Your task to perform on an android device: Open Google Chrome and click the shortcut for Amazon.com Image 0: 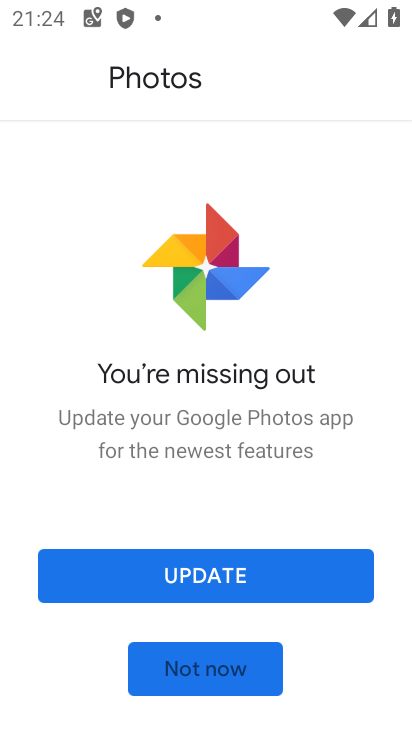
Step 0: press home button
Your task to perform on an android device: Open Google Chrome and click the shortcut for Amazon.com Image 1: 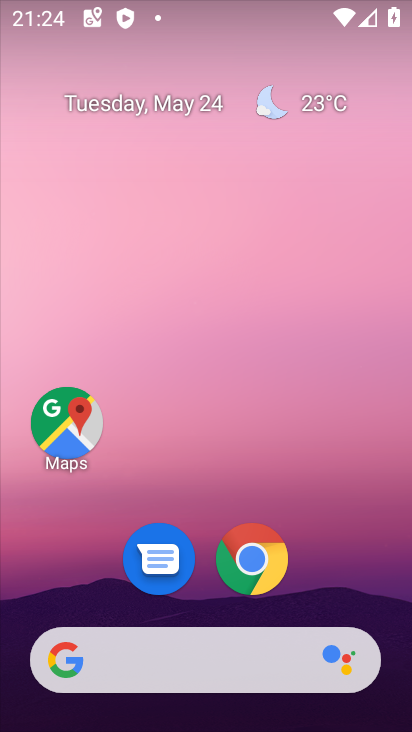
Step 1: drag from (321, 527) to (276, 111)
Your task to perform on an android device: Open Google Chrome and click the shortcut for Amazon.com Image 2: 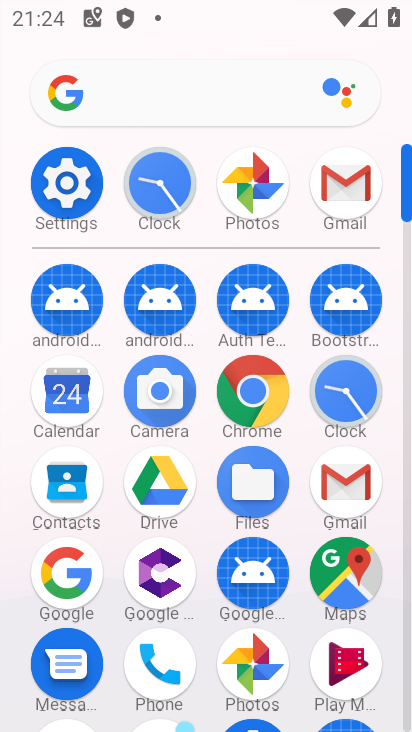
Step 2: click (251, 406)
Your task to perform on an android device: Open Google Chrome and click the shortcut for Amazon.com Image 3: 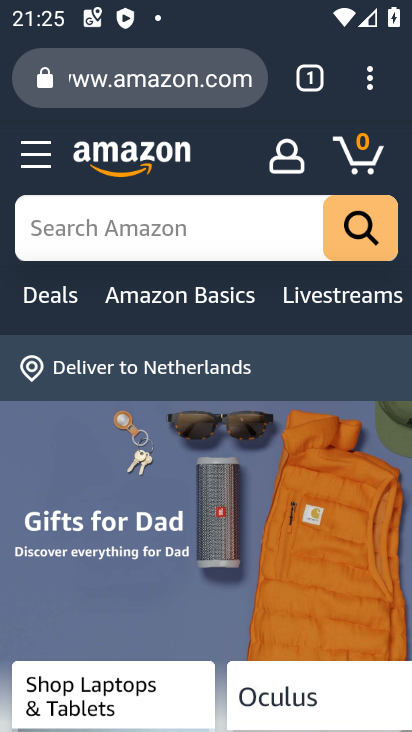
Step 3: drag from (371, 70) to (202, 157)
Your task to perform on an android device: Open Google Chrome and click the shortcut for Amazon.com Image 4: 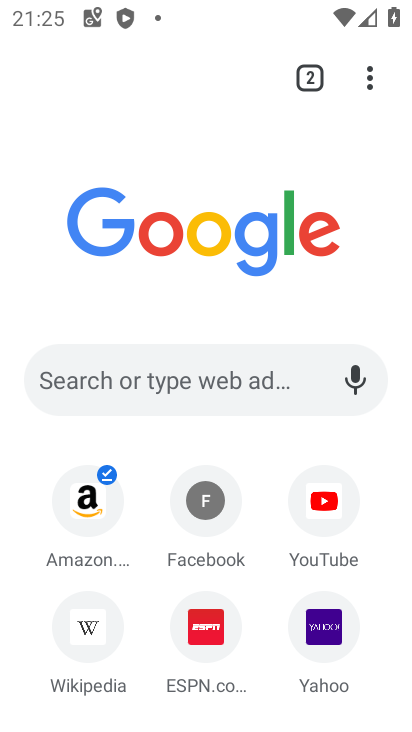
Step 4: click (90, 501)
Your task to perform on an android device: Open Google Chrome and click the shortcut for Amazon.com Image 5: 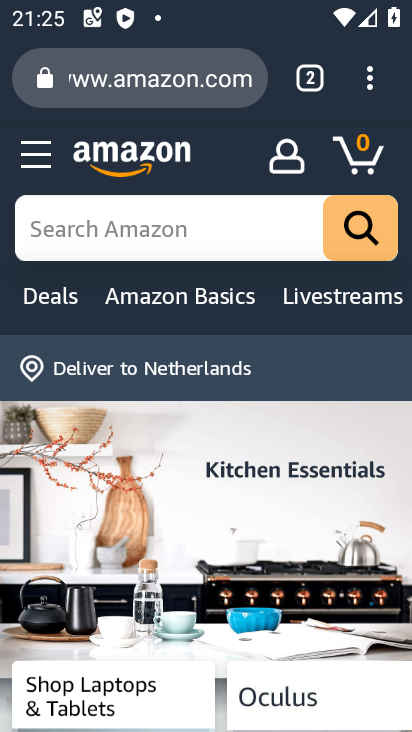
Step 5: task complete